Your task to perform on an android device: Go to privacy settings Image 0: 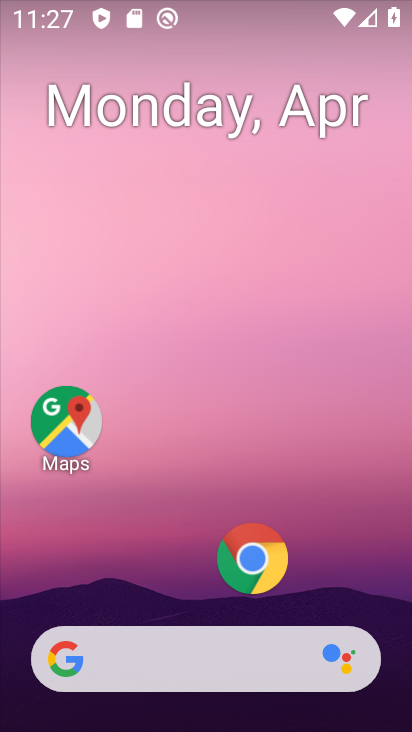
Step 0: drag from (118, 595) to (176, 202)
Your task to perform on an android device: Go to privacy settings Image 1: 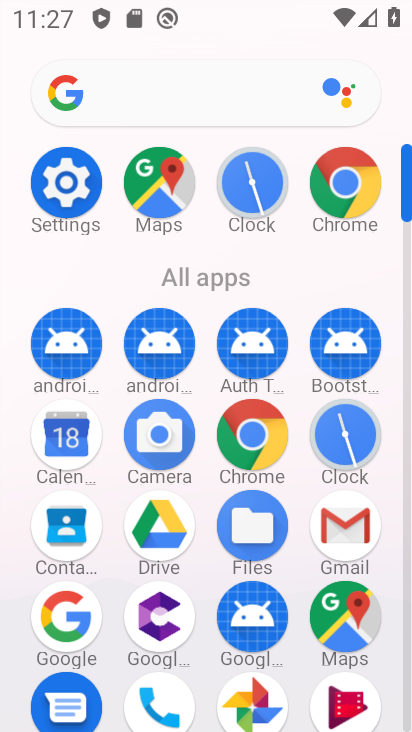
Step 1: drag from (192, 612) to (230, 240)
Your task to perform on an android device: Go to privacy settings Image 2: 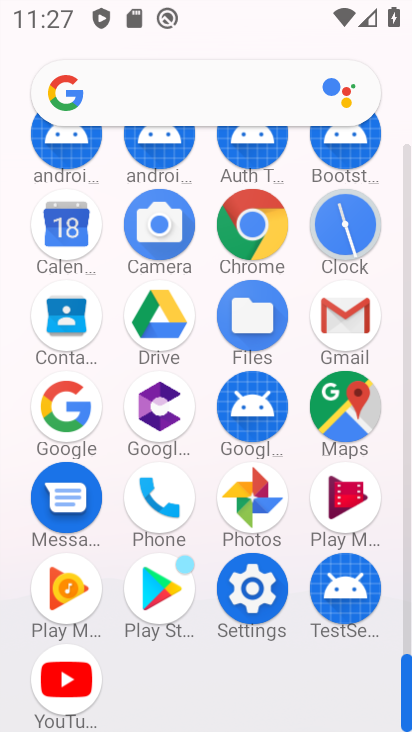
Step 2: click (239, 599)
Your task to perform on an android device: Go to privacy settings Image 3: 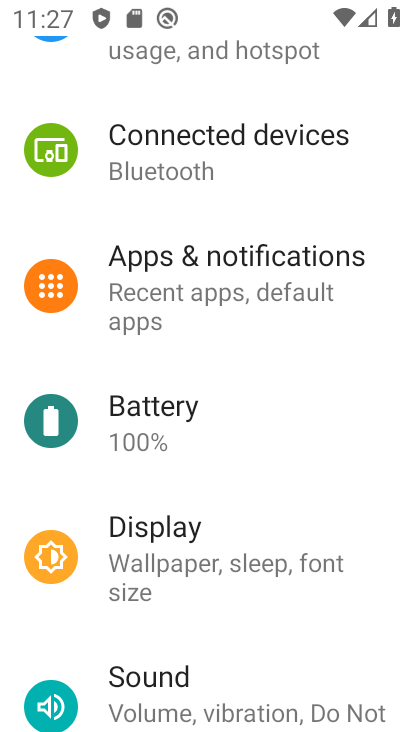
Step 3: drag from (212, 646) to (318, 220)
Your task to perform on an android device: Go to privacy settings Image 4: 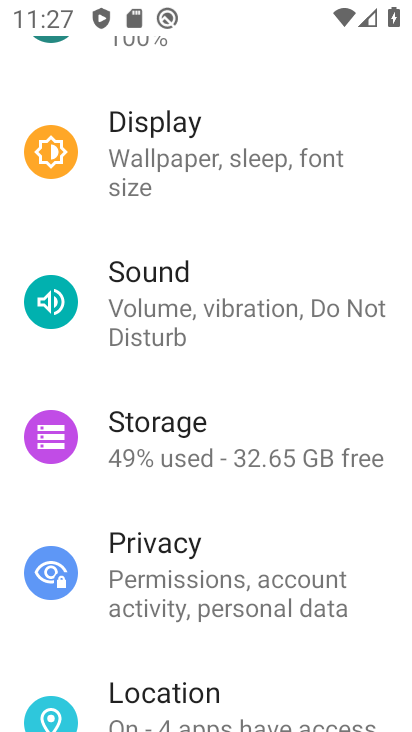
Step 4: click (197, 569)
Your task to perform on an android device: Go to privacy settings Image 5: 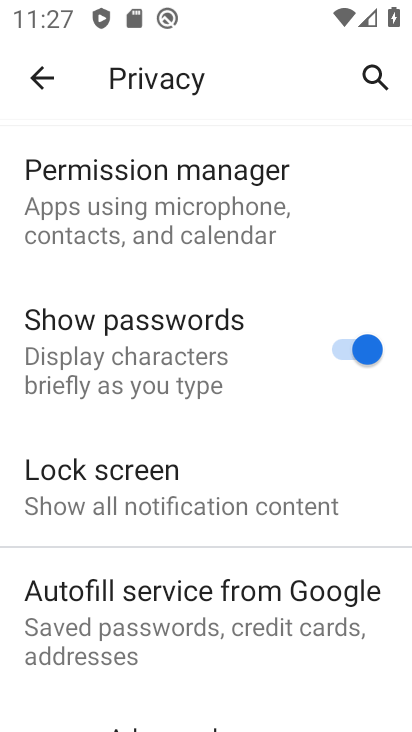
Step 5: task complete